Your task to perform on an android device: Do I have any events this weekend? Image 0: 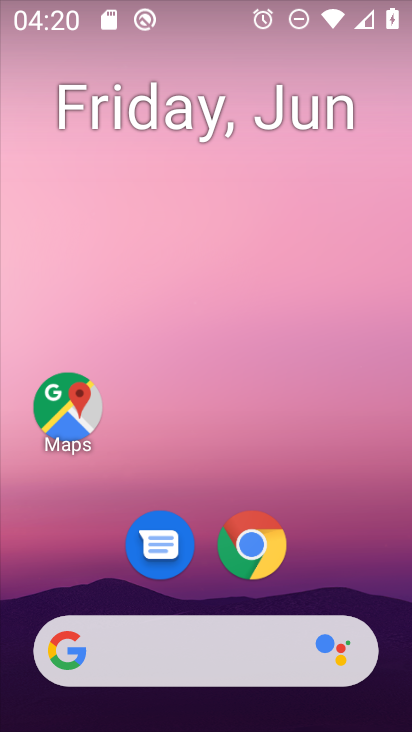
Step 0: drag from (323, 595) to (350, 2)
Your task to perform on an android device: Do I have any events this weekend? Image 1: 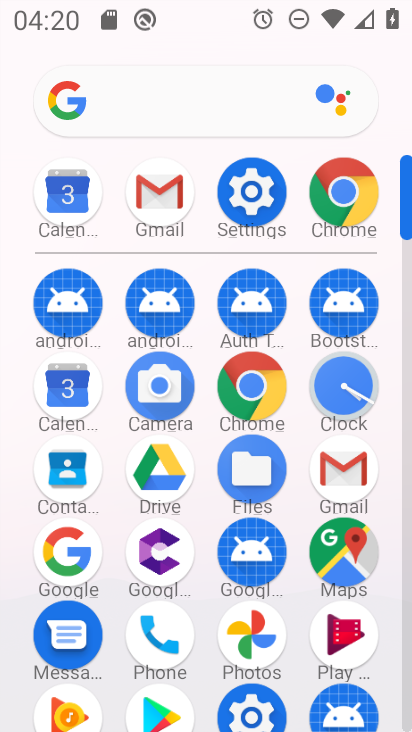
Step 1: click (69, 384)
Your task to perform on an android device: Do I have any events this weekend? Image 2: 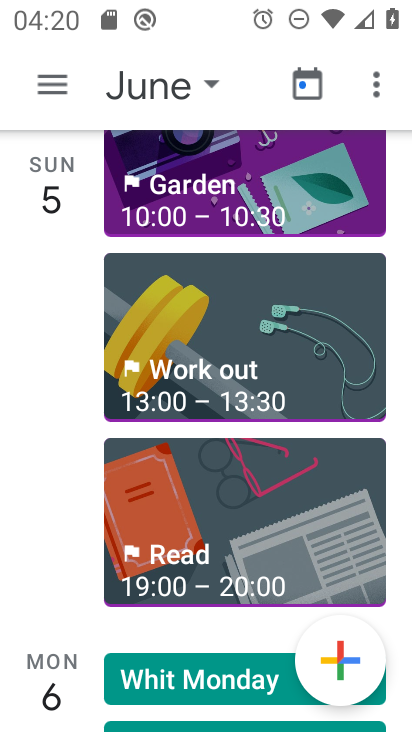
Step 2: click (207, 88)
Your task to perform on an android device: Do I have any events this weekend? Image 3: 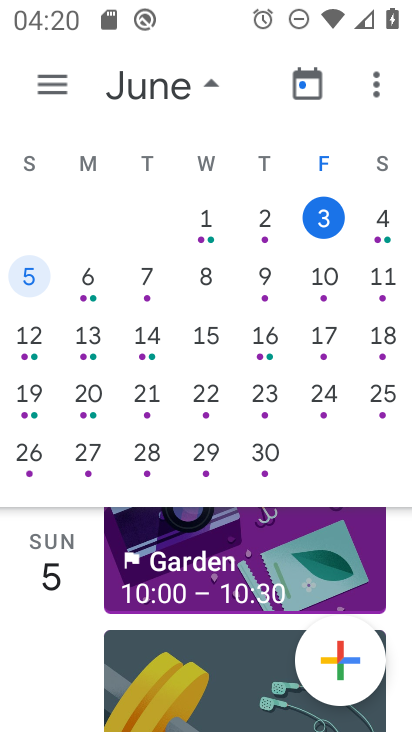
Step 3: click (387, 231)
Your task to perform on an android device: Do I have any events this weekend? Image 4: 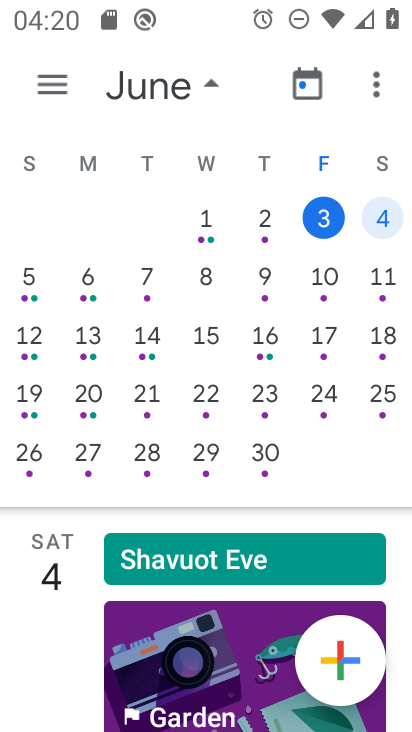
Step 4: task complete